Your task to perform on an android device: Open Google Maps Image 0: 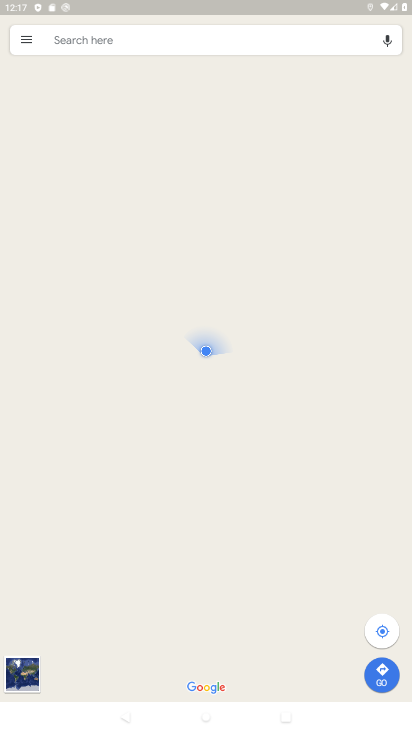
Step 0: task complete